Your task to perform on an android device: Do I have any events this weekend? Image 0: 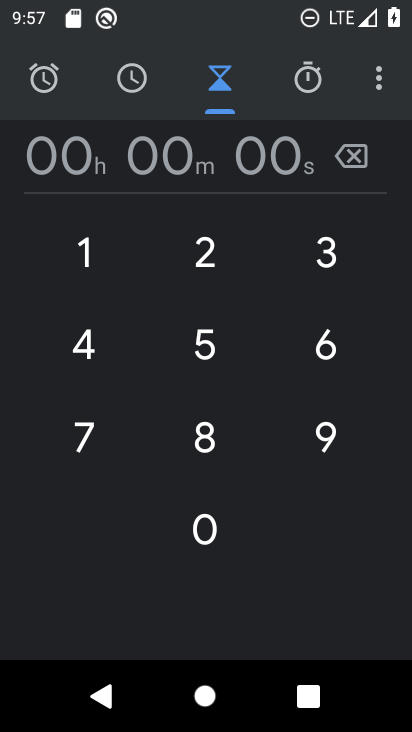
Step 0: press back button
Your task to perform on an android device: Do I have any events this weekend? Image 1: 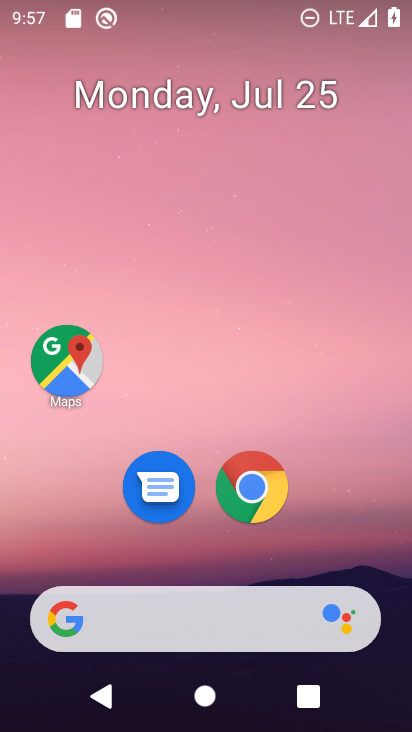
Step 1: drag from (153, 559) to (301, 32)
Your task to perform on an android device: Do I have any events this weekend? Image 2: 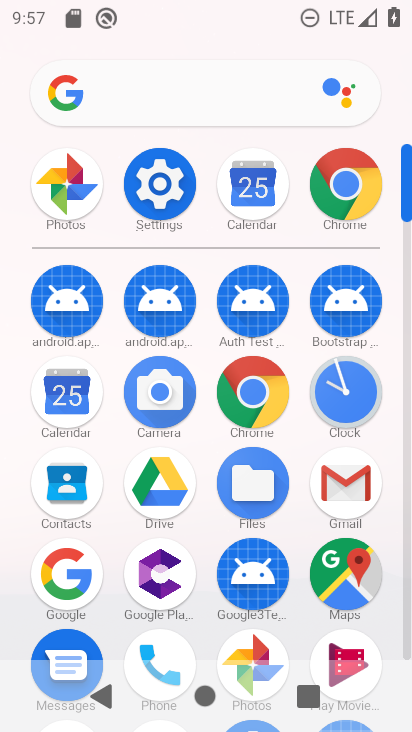
Step 2: click (62, 391)
Your task to perform on an android device: Do I have any events this weekend? Image 3: 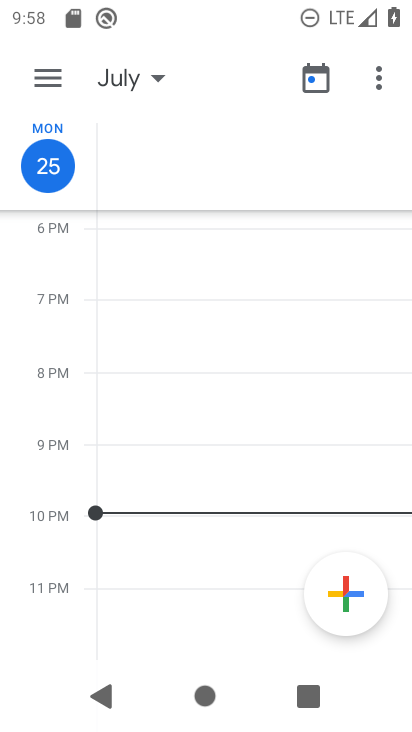
Step 3: click (42, 71)
Your task to perform on an android device: Do I have any events this weekend? Image 4: 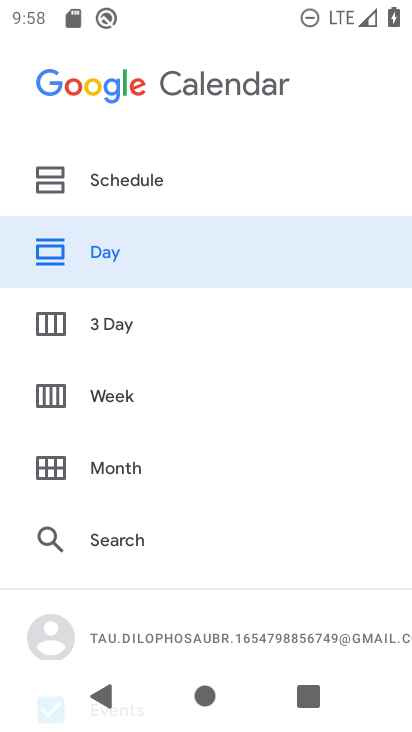
Step 4: click (125, 169)
Your task to perform on an android device: Do I have any events this weekend? Image 5: 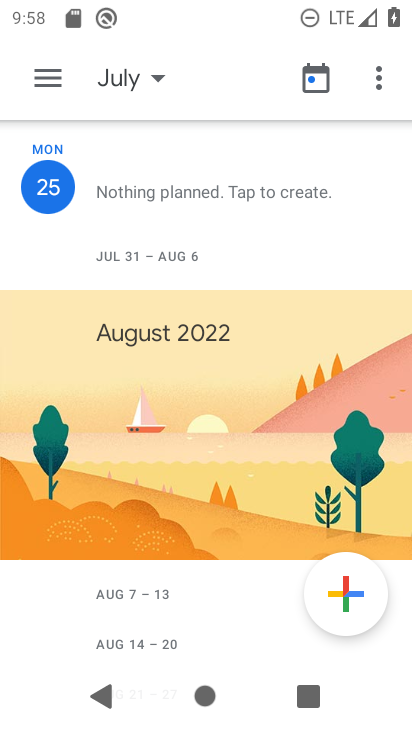
Step 5: click (163, 78)
Your task to perform on an android device: Do I have any events this weekend? Image 6: 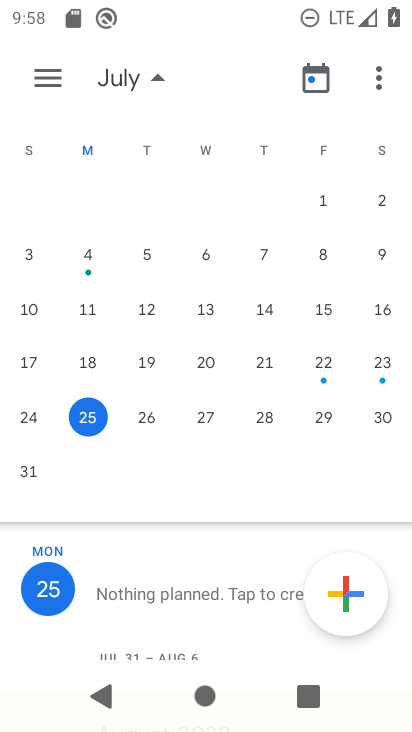
Step 6: click (379, 416)
Your task to perform on an android device: Do I have any events this weekend? Image 7: 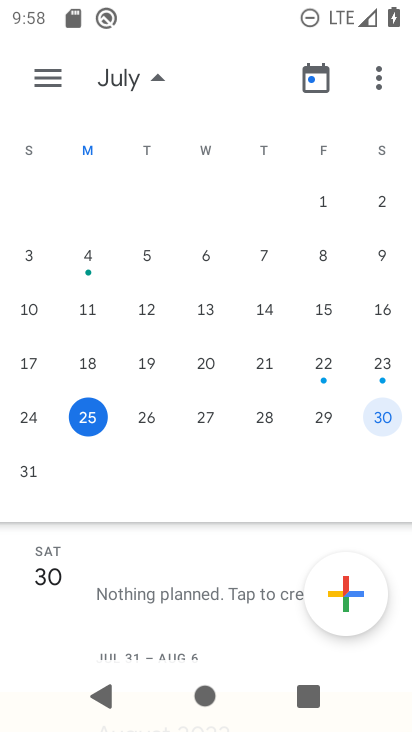
Step 7: task complete